Your task to perform on an android device: star an email in the gmail app Image 0: 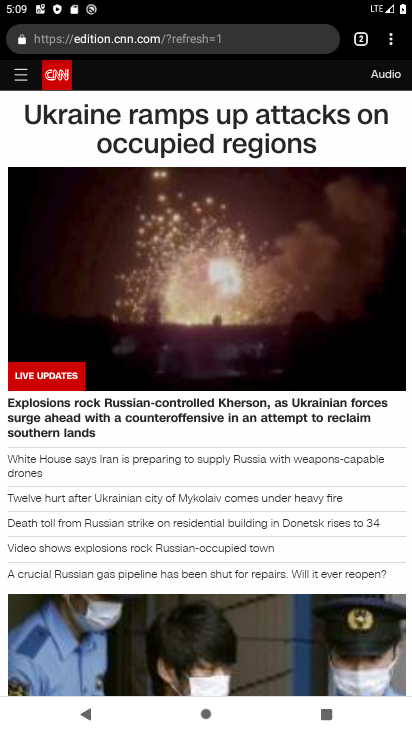
Step 0: press home button
Your task to perform on an android device: star an email in the gmail app Image 1: 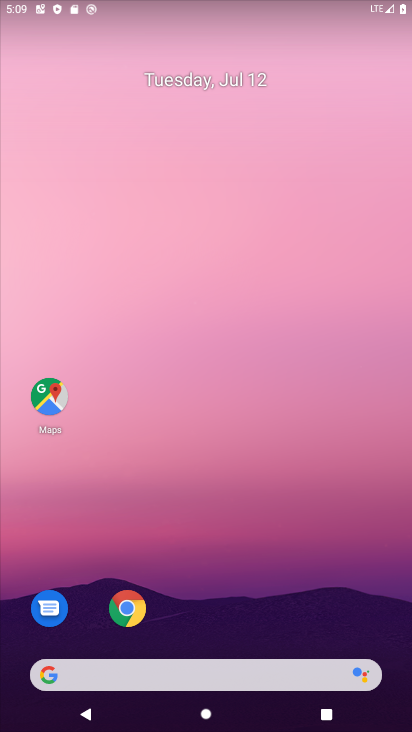
Step 1: drag from (182, 636) to (406, 125)
Your task to perform on an android device: star an email in the gmail app Image 2: 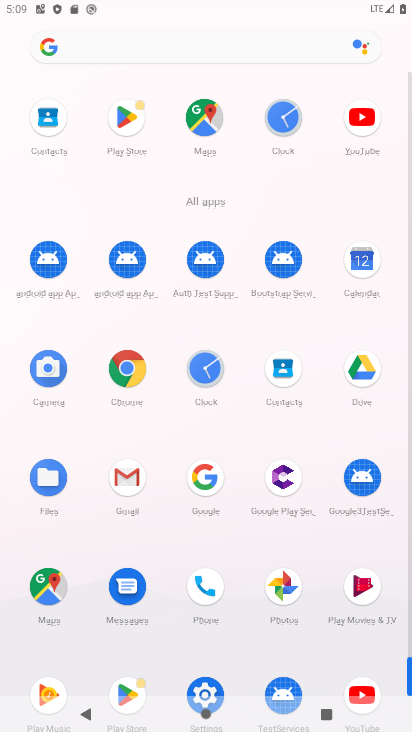
Step 2: click (127, 476)
Your task to perform on an android device: star an email in the gmail app Image 3: 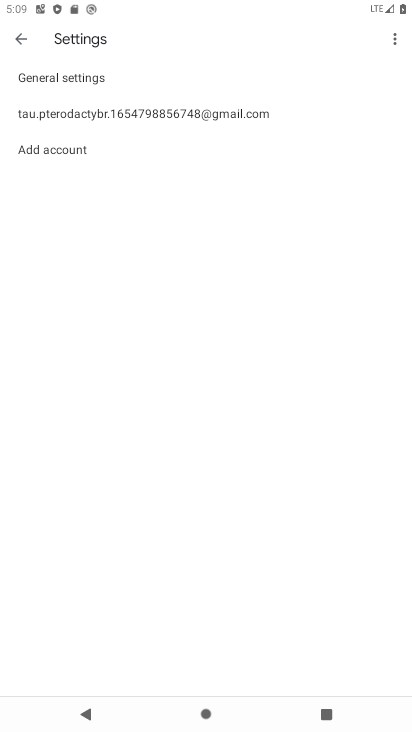
Step 3: click (21, 45)
Your task to perform on an android device: star an email in the gmail app Image 4: 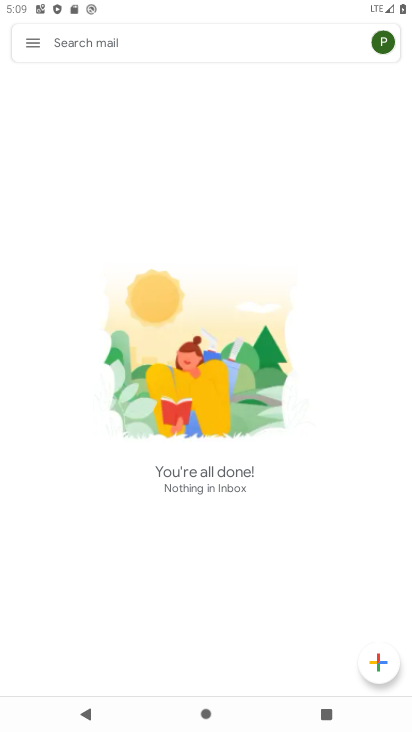
Step 4: task complete